Your task to perform on an android device: turn off sleep mode Image 0: 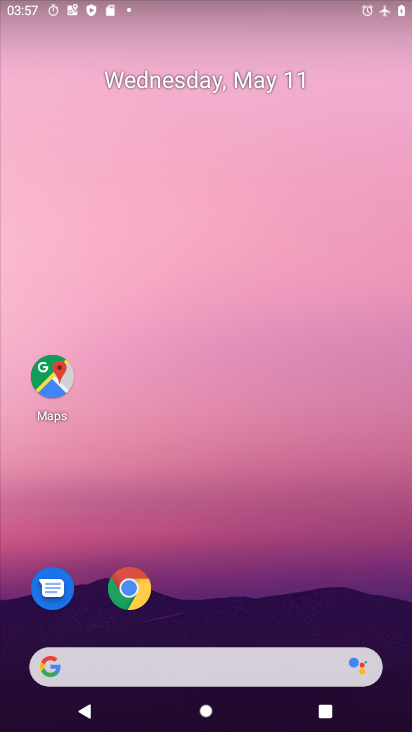
Step 0: drag from (205, 586) to (206, 130)
Your task to perform on an android device: turn off sleep mode Image 1: 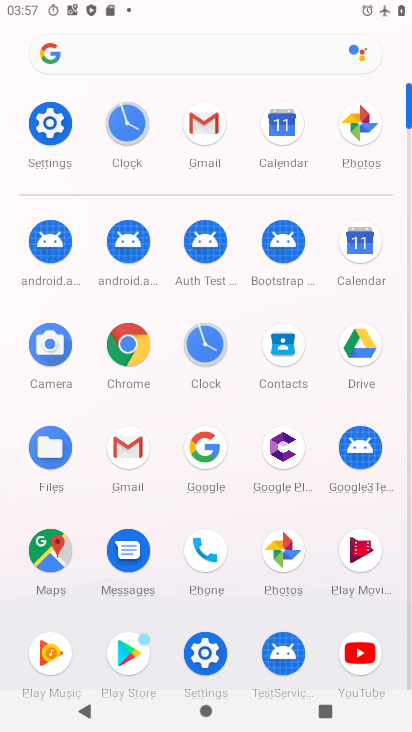
Step 1: click (56, 123)
Your task to perform on an android device: turn off sleep mode Image 2: 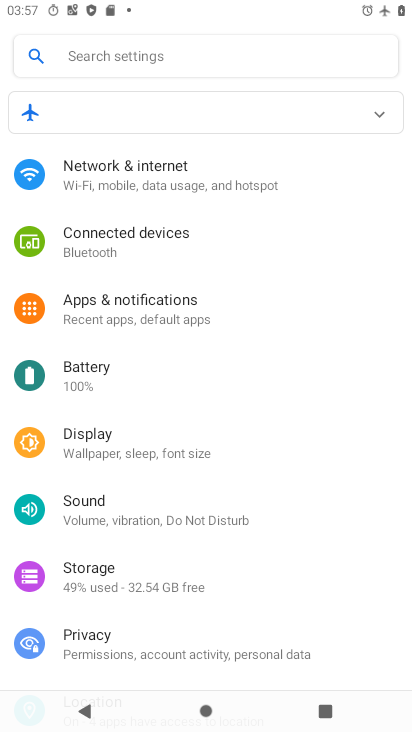
Step 2: click (136, 454)
Your task to perform on an android device: turn off sleep mode Image 3: 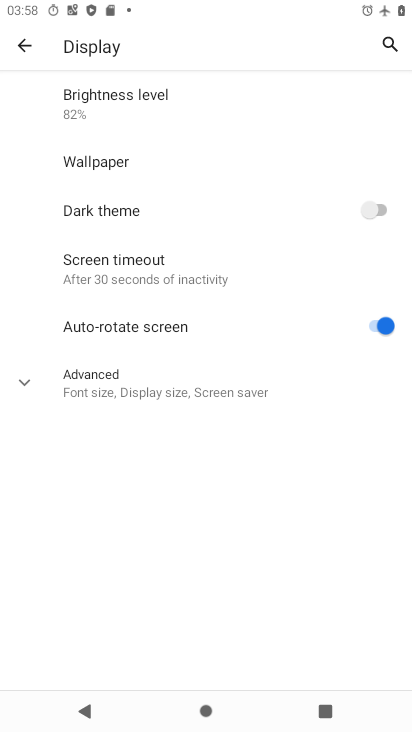
Step 3: click (153, 256)
Your task to perform on an android device: turn off sleep mode Image 4: 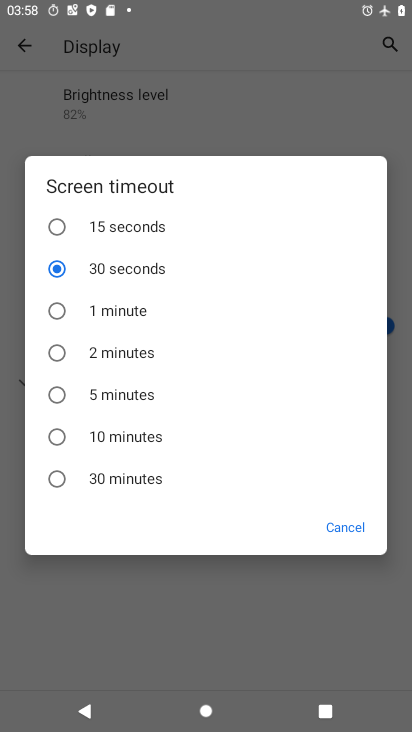
Step 4: click (109, 395)
Your task to perform on an android device: turn off sleep mode Image 5: 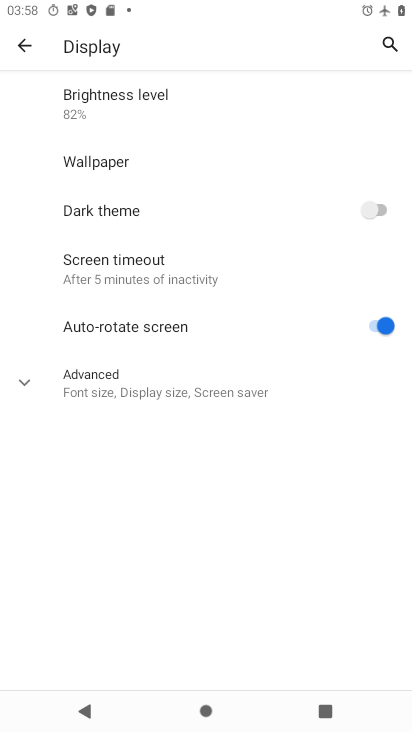
Step 5: task complete